Your task to perform on an android device: turn pop-ups on in chrome Image 0: 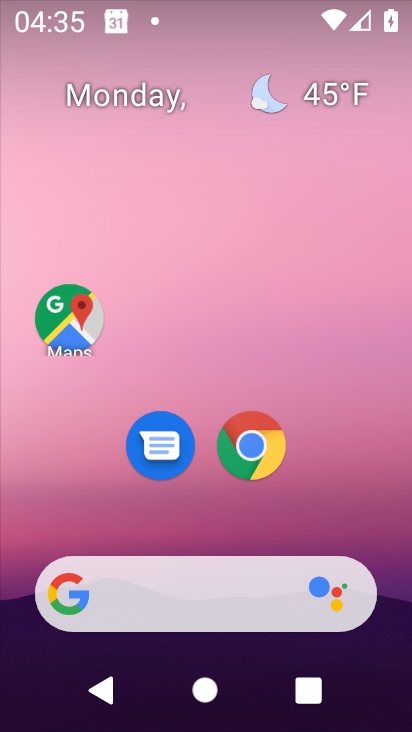
Step 0: click (259, 456)
Your task to perform on an android device: turn pop-ups on in chrome Image 1: 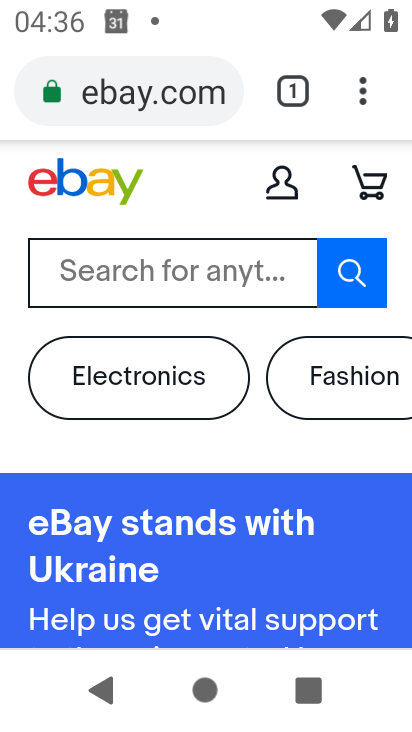
Step 1: click (342, 90)
Your task to perform on an android device: turn pop-ups on in chrome Image 2: 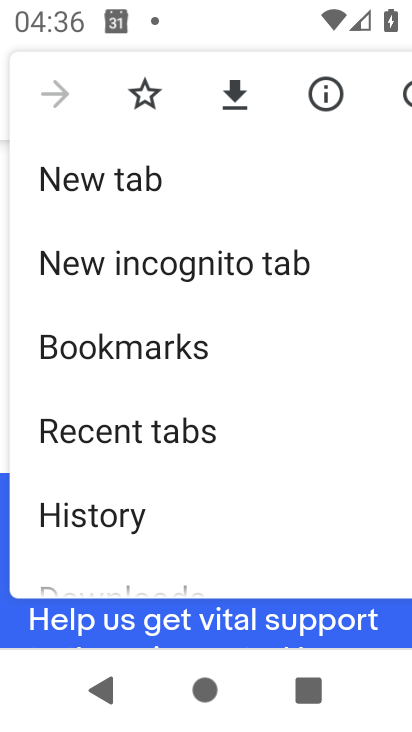
Step 2: drag from (272, 480) to (232, 113)
Your task to perform on an android device: turn pop-ups on in chrome Image 3: 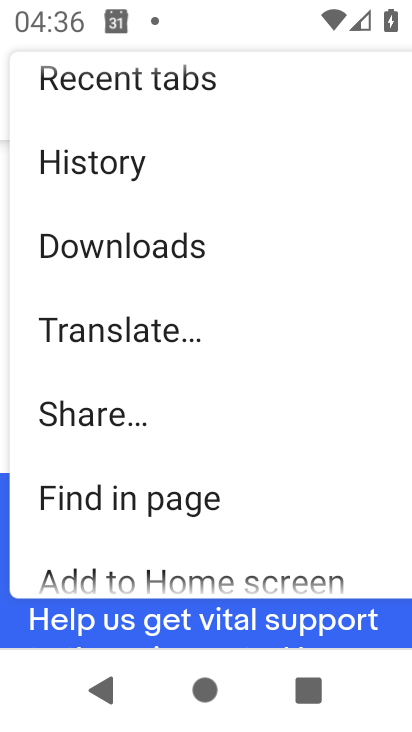
Step 3: drag from (143, 535) to (169, 115)
Your task to perform on an android device: turn pop-ups on in chrome Image 4: 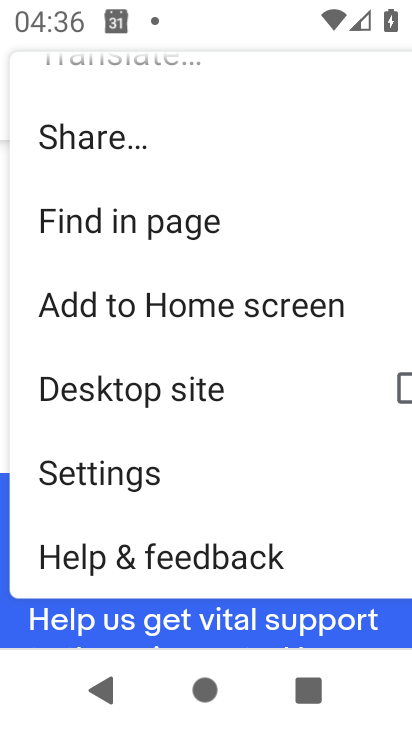
Step 4: click (276, 473)
Your task to perform on an android device: turn pop-ups on in chrome Image 5: 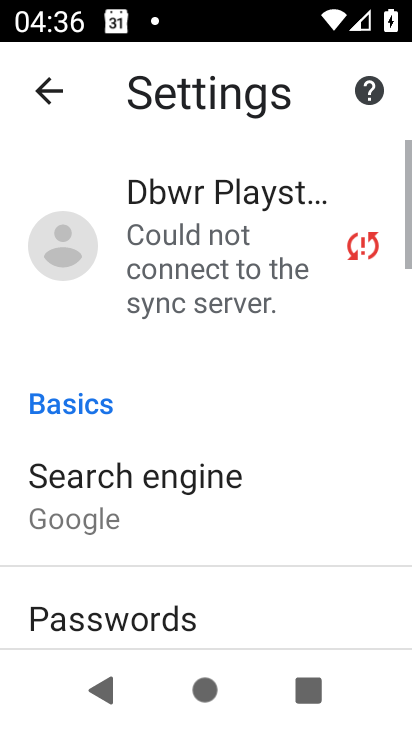
Step 5: drag from (205, 575) to (226, 216)
Your task to perform on an android device: turn pop-ups on in chrome Image 6: 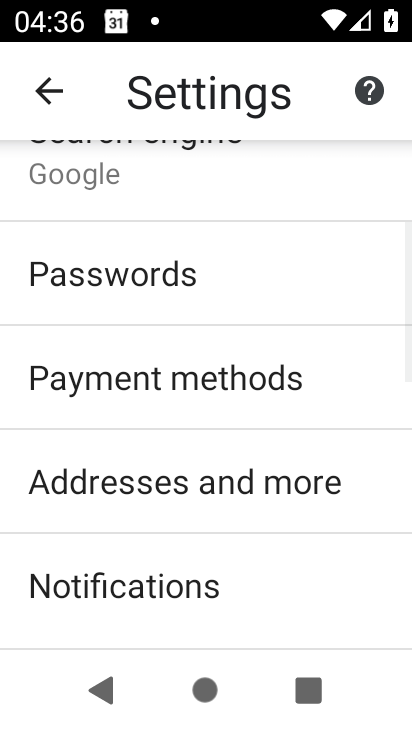
Step 6: drag from (235, 574) to (258, 213)
Your task to perform on an android device: turn pop-ups on in chrome Image 7: 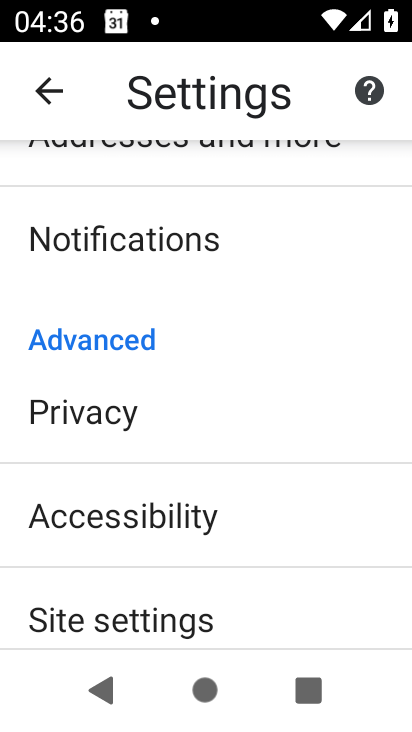
Step 7: drag from (247, 554) to (247, 304)
Your task to perform on an android device: turn pop-ups on in chrome Image 8: 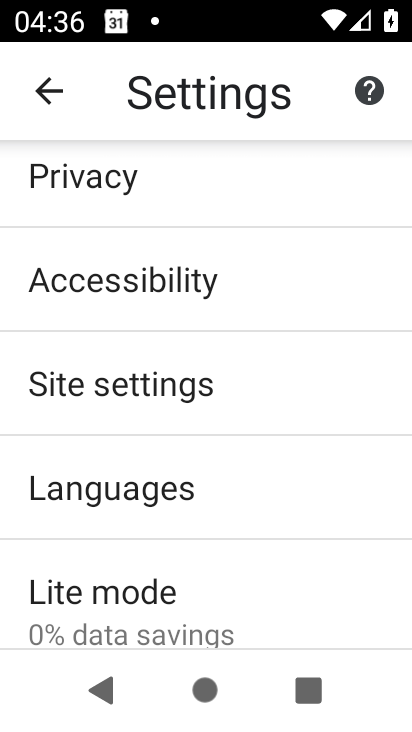
Step 8: click (248, 366)
Your task to perform on an android device: turn pop-ups on in chrome Image 9: 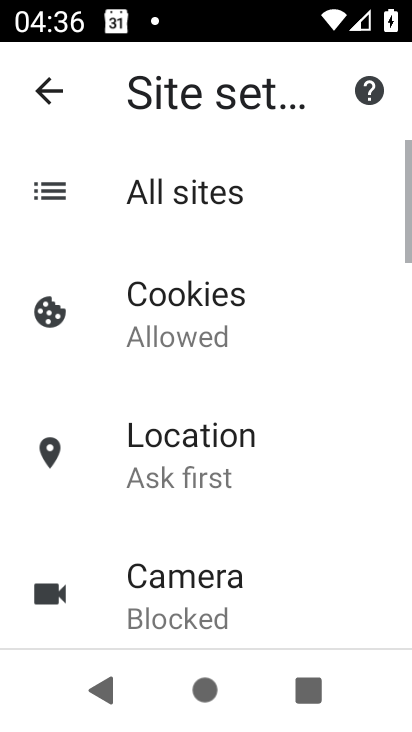
Step 9: drag from (264, 484) to (271, 169)
Your task to perform on an android device: turn pop-ups on in chrome Image 10: 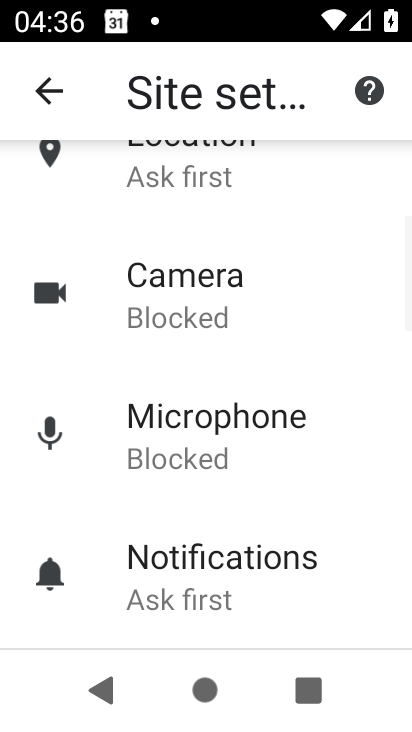
Step 10: drag from (299, 433) to (309, 254)
Your task to perform on an android device: turn pop-ups on in chrome Image 11: 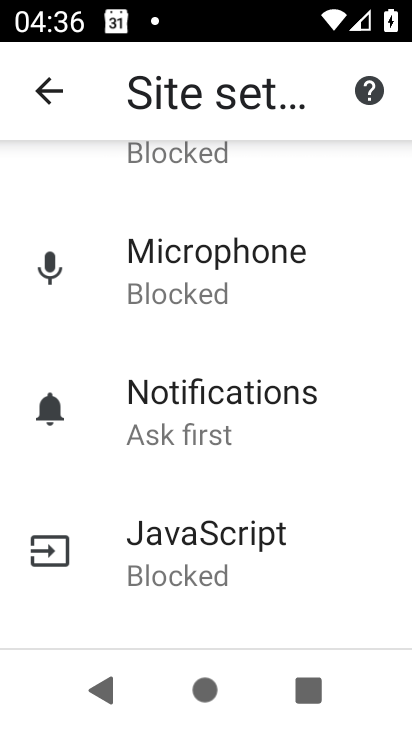
Step 11: drag from (331, 510) to (327, 310)
Your task to perform on an android device: turn pop-ups on in chrome Image 12: 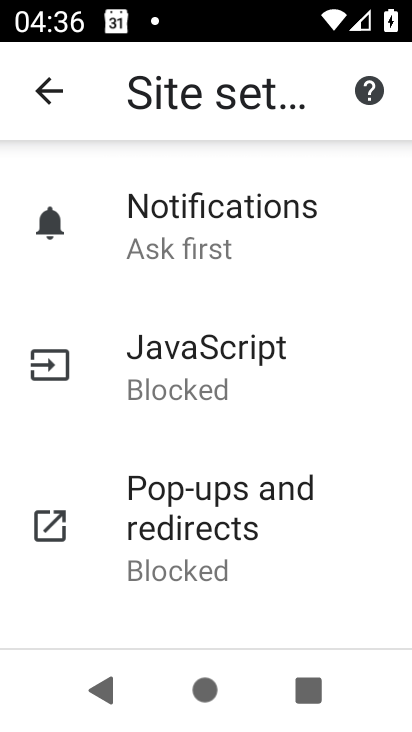
Step 12: click (324, 535)
Your task to perform on an android device: turn pop-ups on in chrome Image 13: 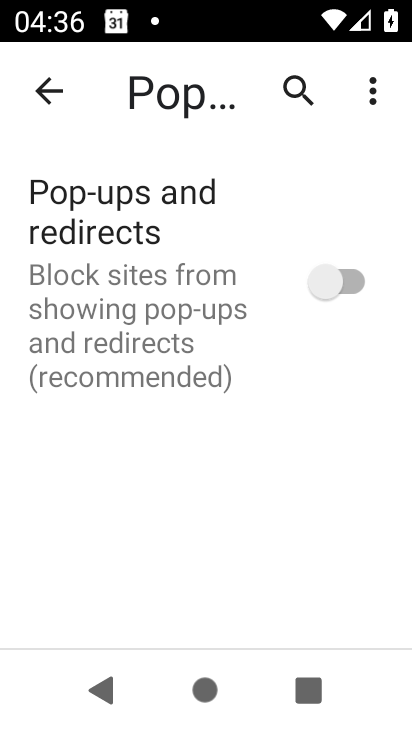
Step 13: click (343, 283)
Your task to perform on an android device: turn pop-ups on in chrome Image 14: 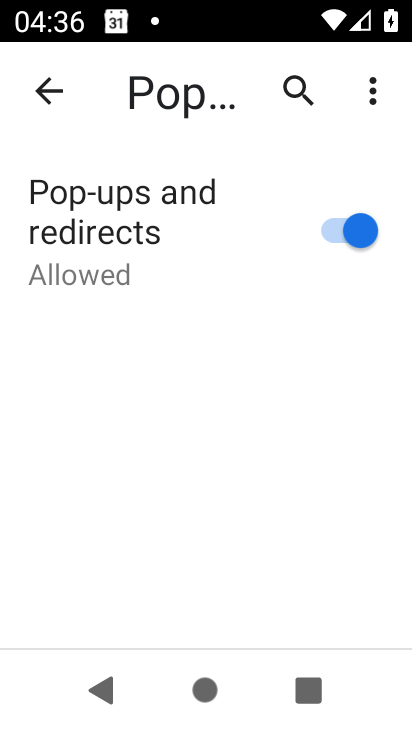
Step 14: task complete